Your task to perform on an android device: What is the news today? Image 0: 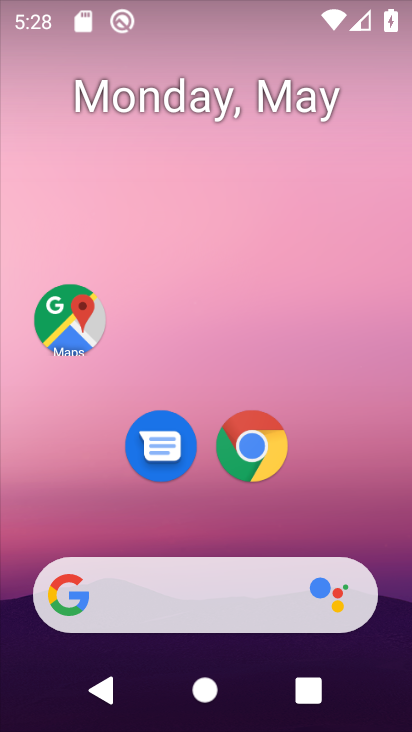
Step 0: click (259, 455)
Your task to perform on an android device: What is the news today? Image 1: 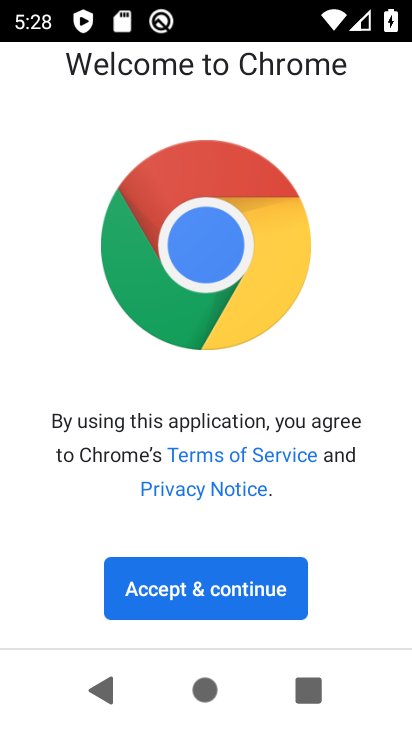
Step 1: click (231, 593)
Your task to perform on an android device: What is the news today? Image 2: 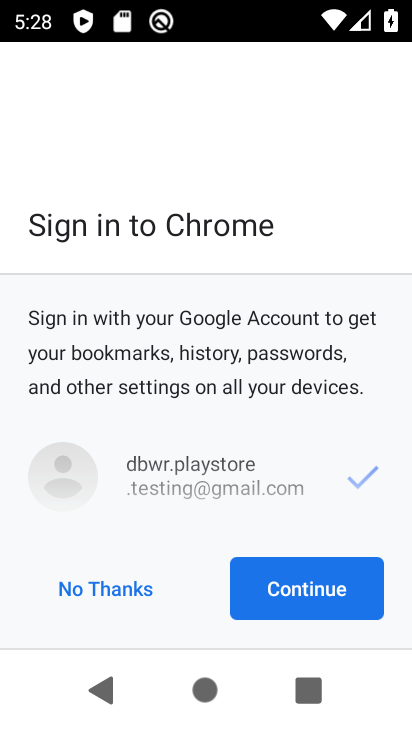
Step 2: click (357, 596)
Your task to perform on an android device: What is the news today? Image 3: 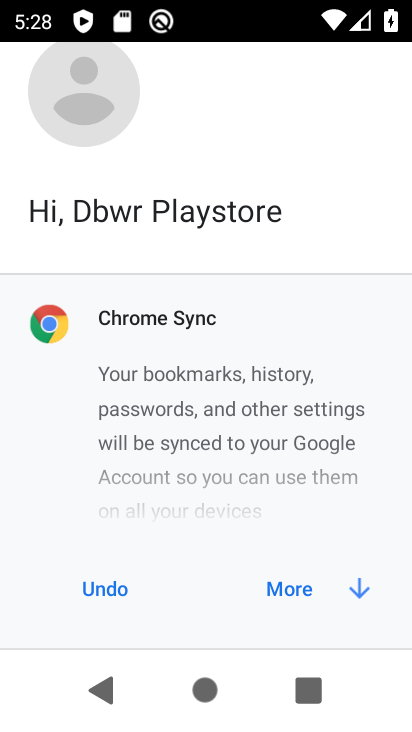
Step 3: click (341, 577)
Your task to perform on an android device: What is the news today? Image 4: 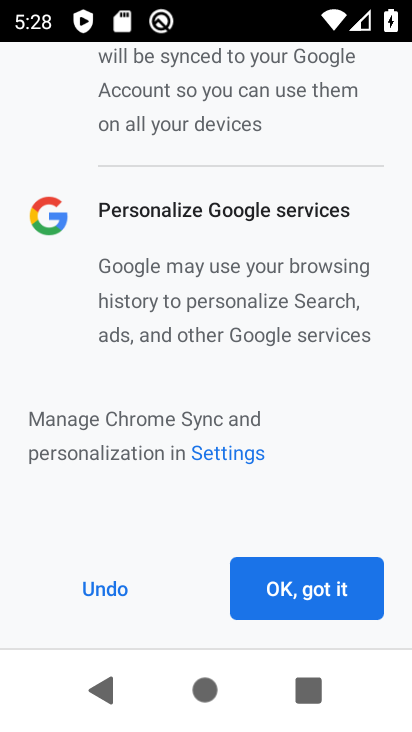
Step 4: click (339, 580)
Your task to perform on an android device: What is the news today? Image 5: 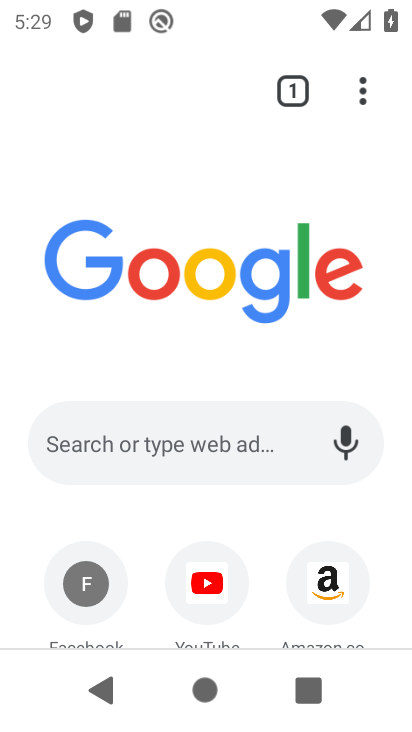
Step 5: click (250, 442)
Your task to perform on an android device: What is the news today? Image 6: 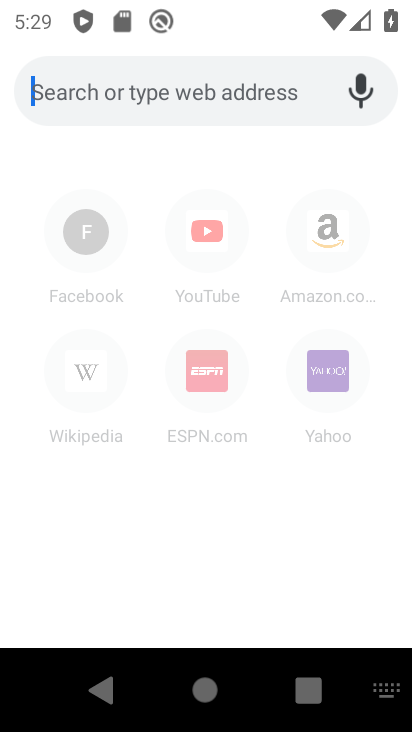
Step 6: type "What is the news today?"
Your task to perform on an android device: What is the news today? Image 7: 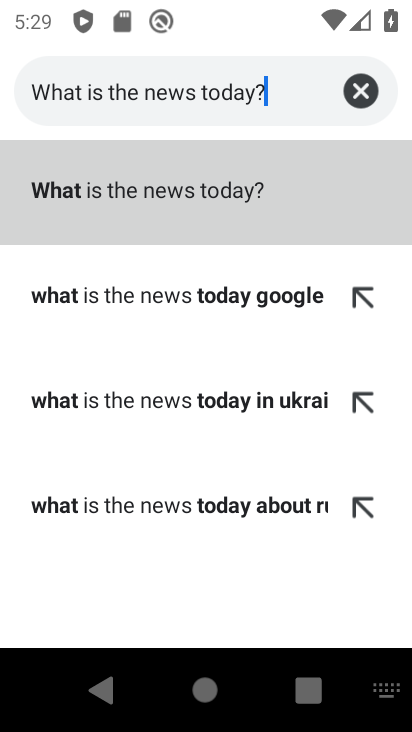
Step 7: click (197, 193)
Your task to perform on an android device: What is the news today? Image 8: 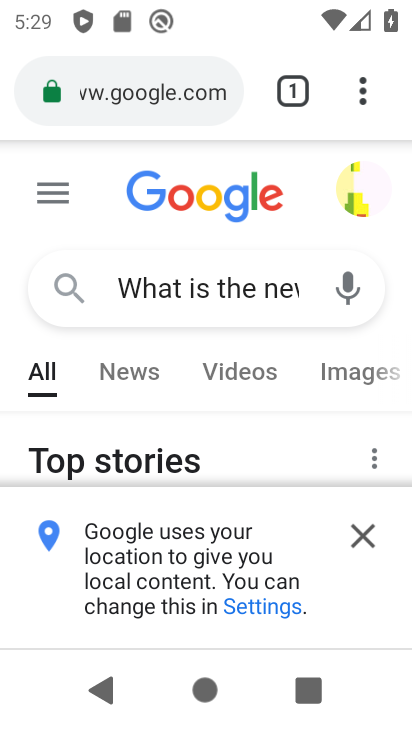
Step 8: drag from (269, 441) to (280, 108)
Your task to perform on an android device: What is the news today? Image 9: 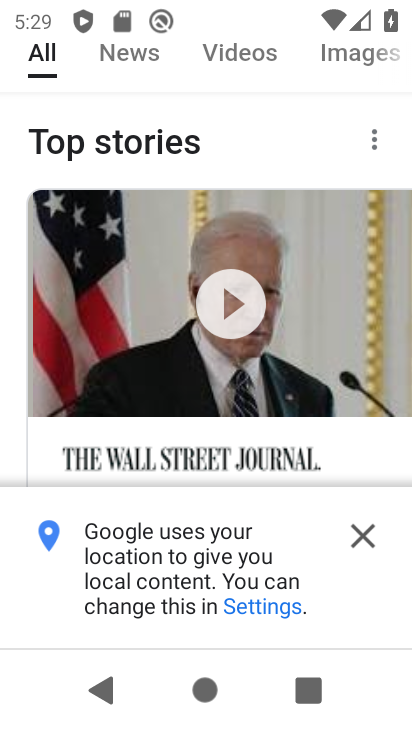
Step 9: click (130, 47)
Your task to perform on an android device: What is the news today? Image 10: 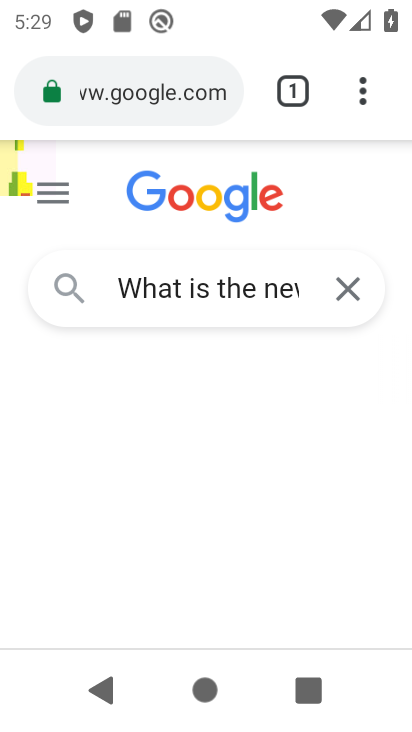
Step 10: click (369, 532)
Your task to perform on an android device: What is the news today? Image 11: 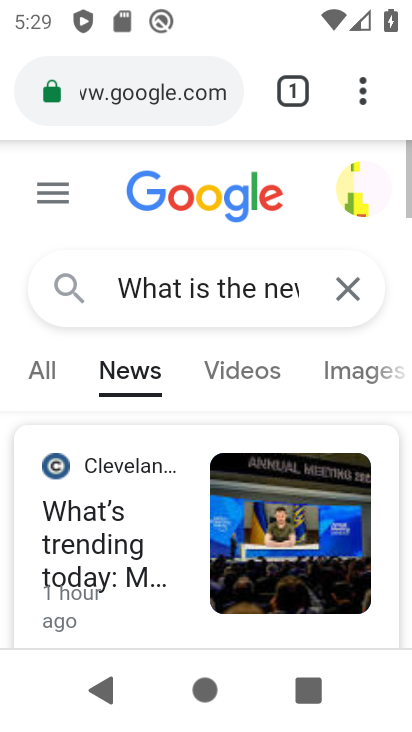
Step 11: task complete